Your task to perform on an android device: empty trash in google photos Image 0: 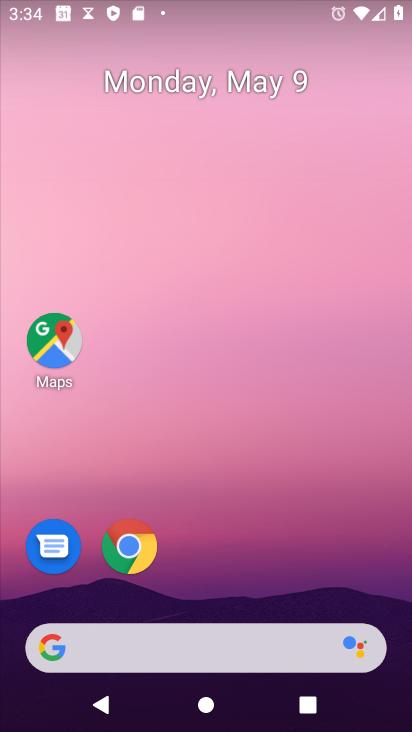
Step 0: drag from (295, 520) to (257, 21)
Your task to perform on an android device: empty trash in google photos Image 1: 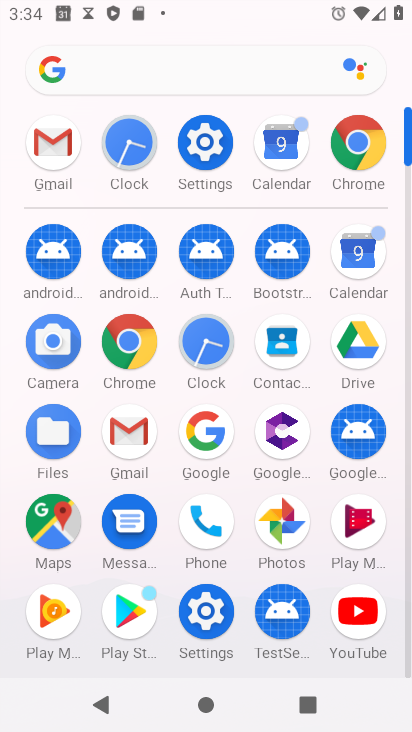
Step 1: click (273, 525)
Your task to perform on an android device: empty trash in google photos Image 2: 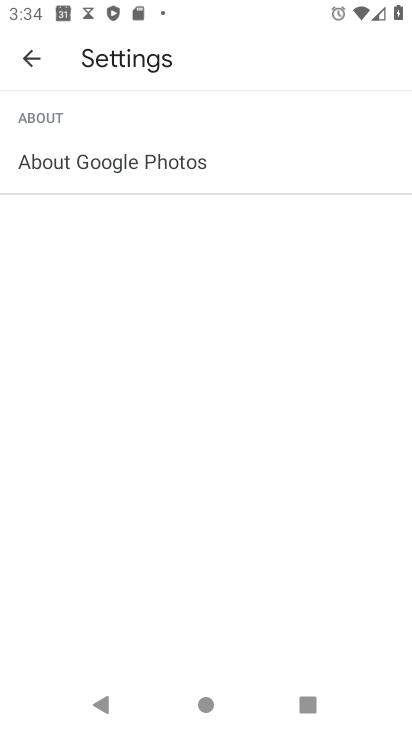
Step 2: click (112, 162)
Your task to perform on an android device: empty trash in google photos Image 3: 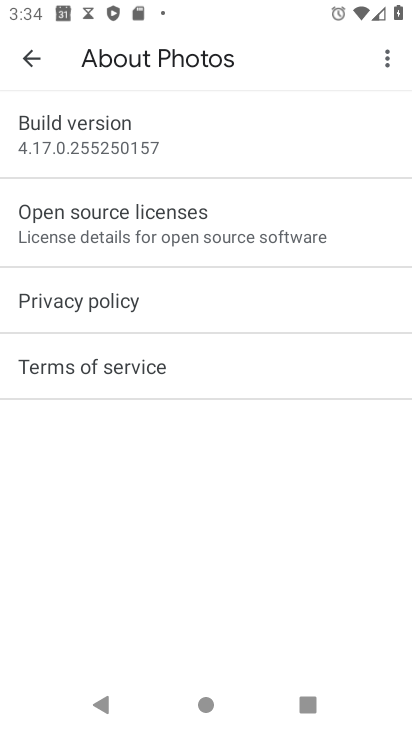
Step 3: task complete